Your task to perform on an android device: change text size in settings app Image 0: 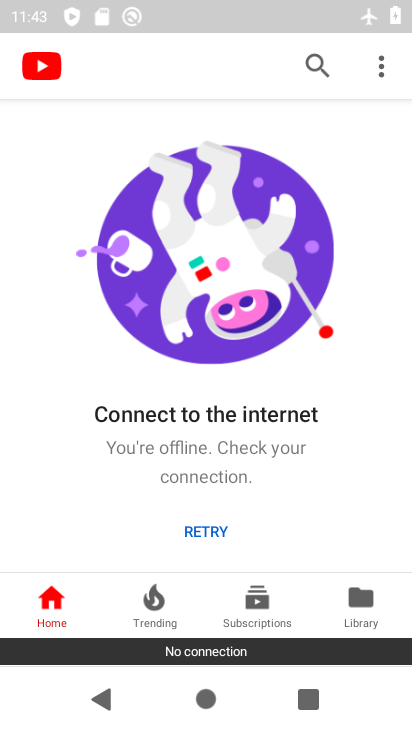
Step 0: press home button
Your task to perform on an android device: change text size in settings app Image 1: 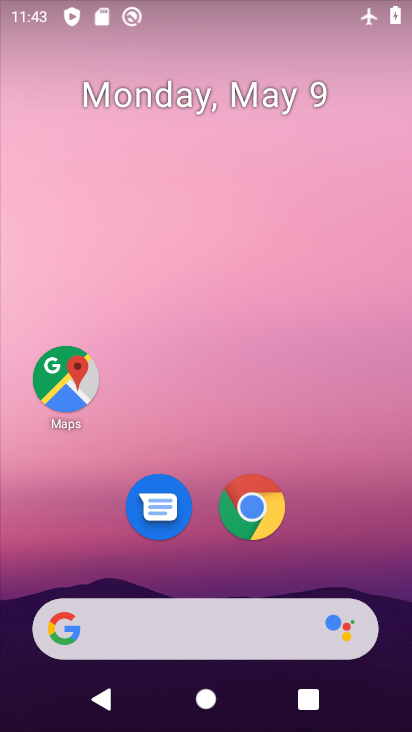
Step 1: drag from (347, 561) to (264, 38)
Your task to perform on an android device: change text size in settings app Image 2: 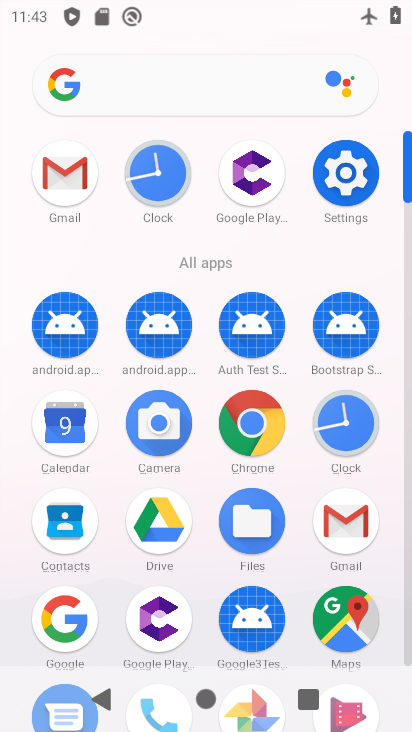
Step 2: click (338, 164)
Your task to perform on an android device: change text size in settings app Image 3: 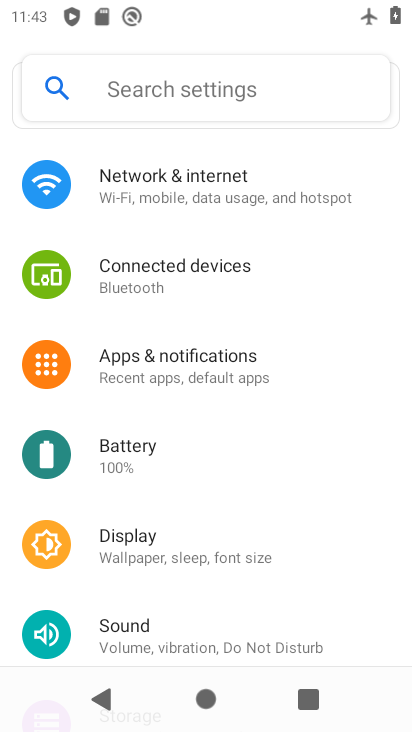
Step 3: click (187, 545)
Your task to perform on an android device: change text size in settings app Image 4: 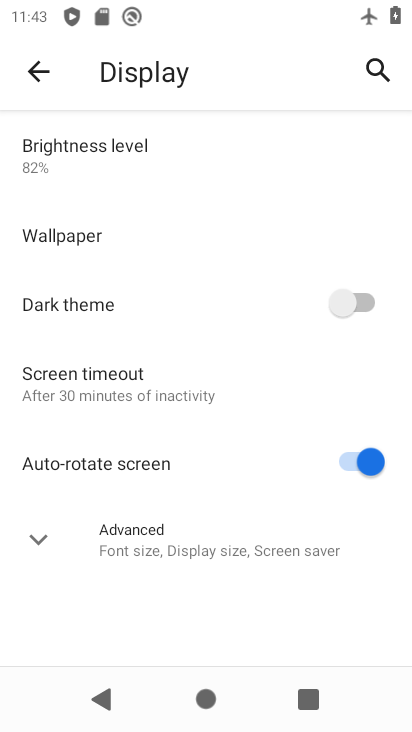
Step 4: click (154, 527)
Your task to perform on an android device: change text size in settings app Image 5: 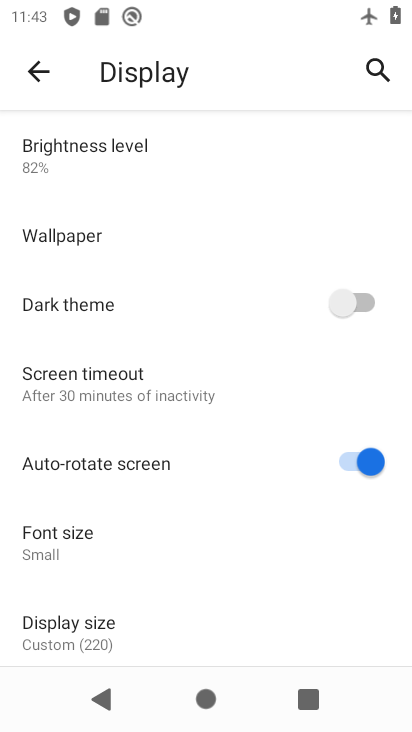
Step 5: click (124, 538)
Your task to perform on an android device: change text size in settings app Image 6: 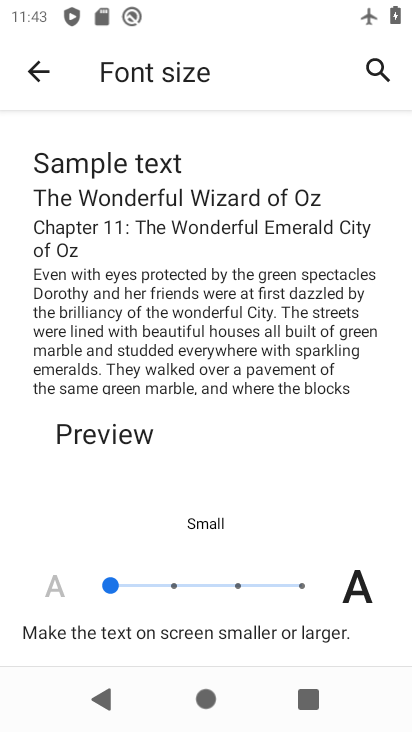
Step 6: click (175, 585)
Your task to perform on an android device: change text size in settings app Image 7: 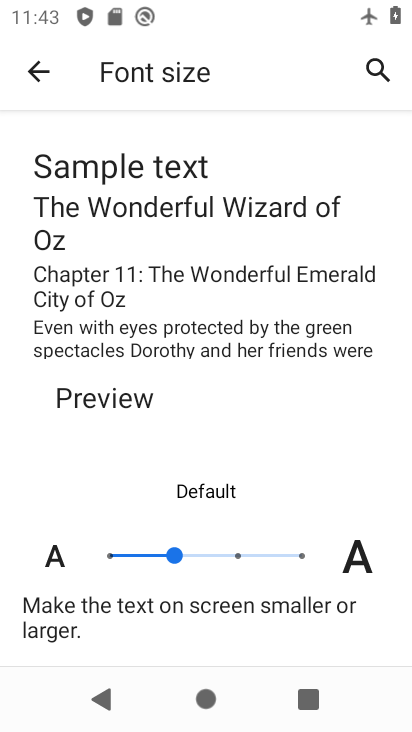
Step 7: task complete